Your task to perform on an android device: Show me productivity apps on the Play Store Image 0: 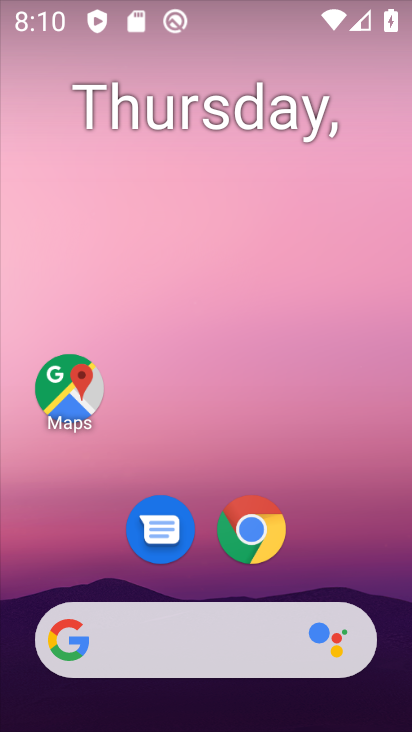
Step 0: drag from (202, 568) to (222, 16)
Your task to perform on an android device: Show me productivity apps on the Play Store Image 1: 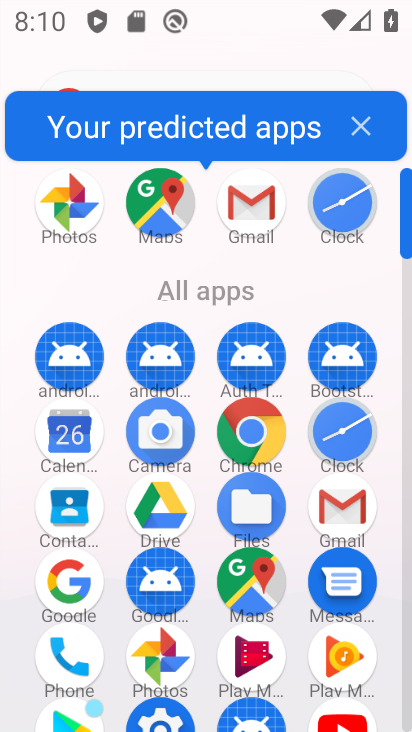
Step 1: drag from (205, 623) to (205, 145)
Your task to perform on an android device: Show me productivity apps on the Play Store Image 2: 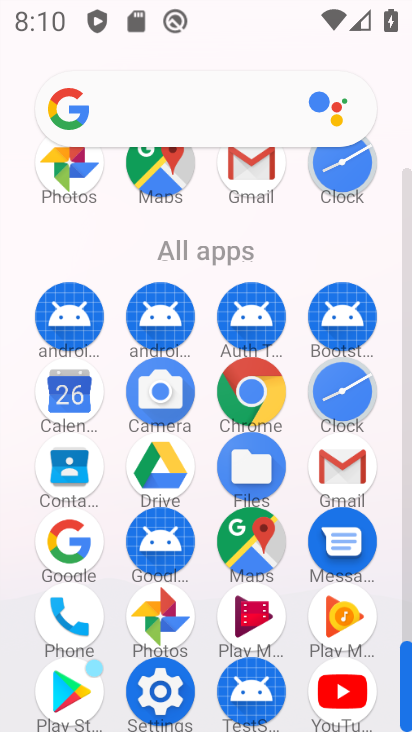
Step 2: click (68, 676)
Your task to perform on an android device: Show me productivity apps on the Play Store Image 3: 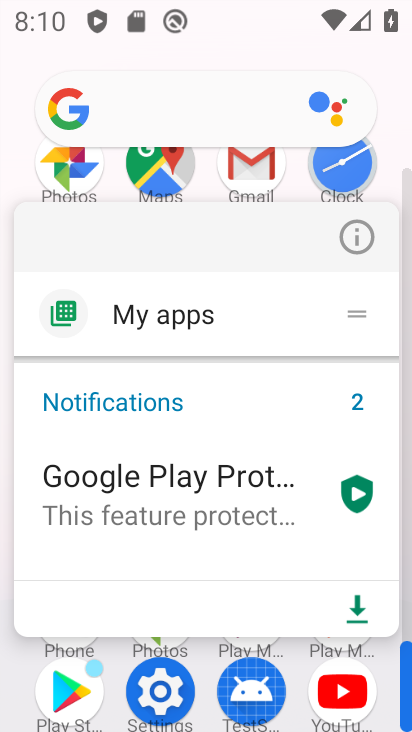
Step 3: click (71, 690)
Your task to perform on an android device: Show me productivity apps on the Play Store Image 4: 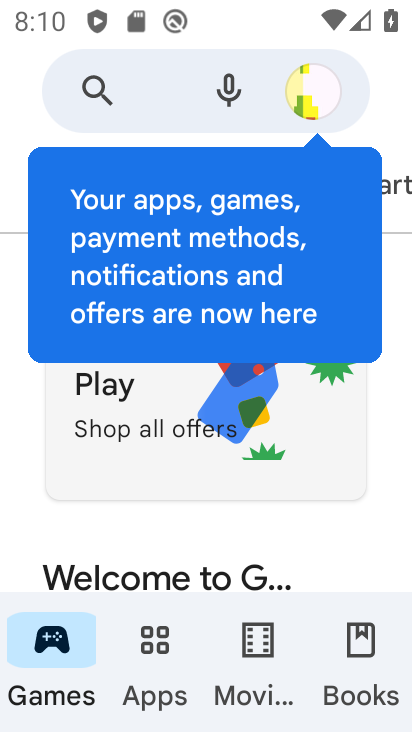
Step 4: click (144, 647)
Your task to perform on an android device: Show me productivity apps on the Play Store Image 5: 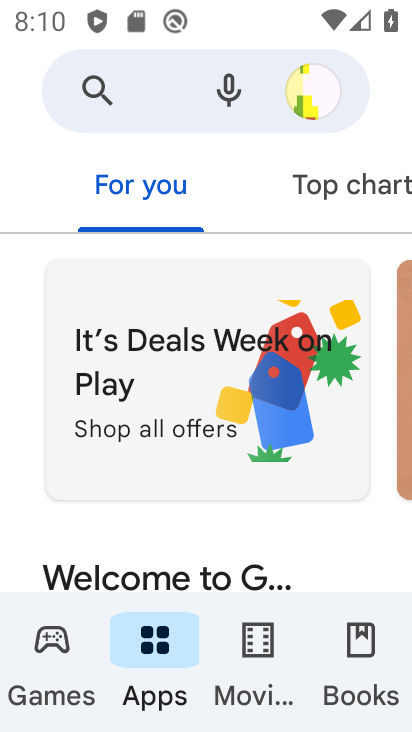
Step 5: drag from (355, 187) to (0, 190)
Your task to perform on an android device: Show me productivity apps on the Play Store Image 6: 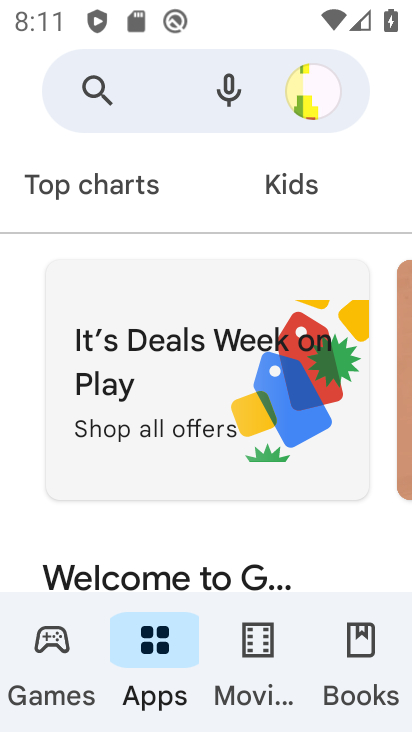
Step 6: drag from (327, 198) to (63, 206)
Your task to perform on an android device: Show me productivity apps on the Play Store Image 7: 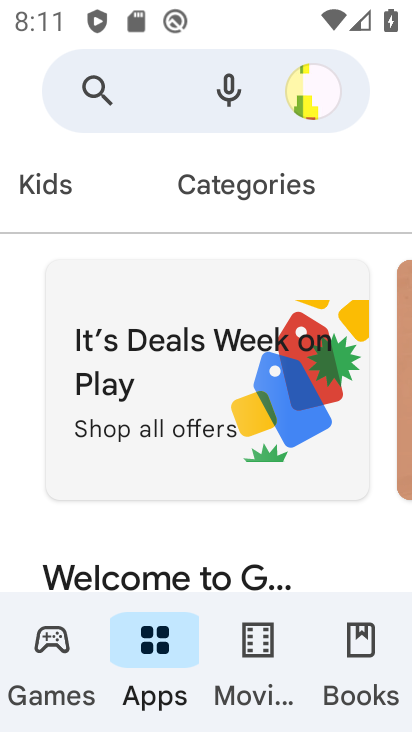
Step 7: click (229, 207)
Your task to perform on an android device: Show me productivity apps on the Play Store Image 8: 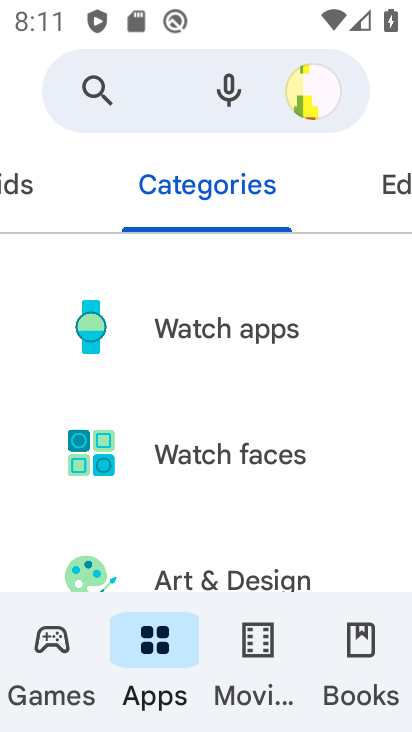
Step 8: drag from (261, 523) to (271, 62)
Your task to perform on an android device: Show me productivity apps on the Play Store Image 9: 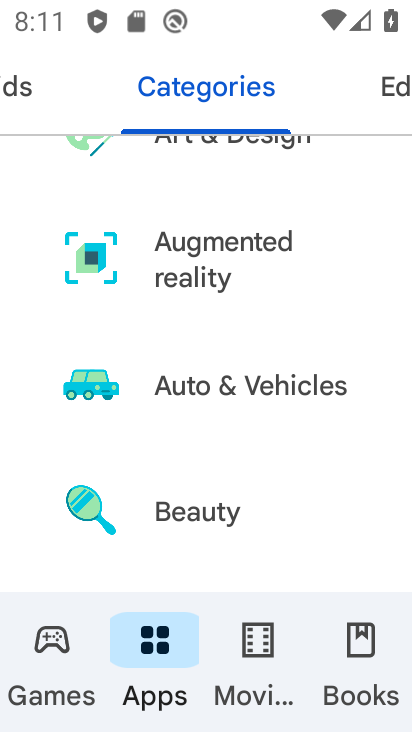
Step 9: drag from (211, 539) to (228, 55)
Your task to perform on an android device: Show me productivity apps on the Play Store Image 10: 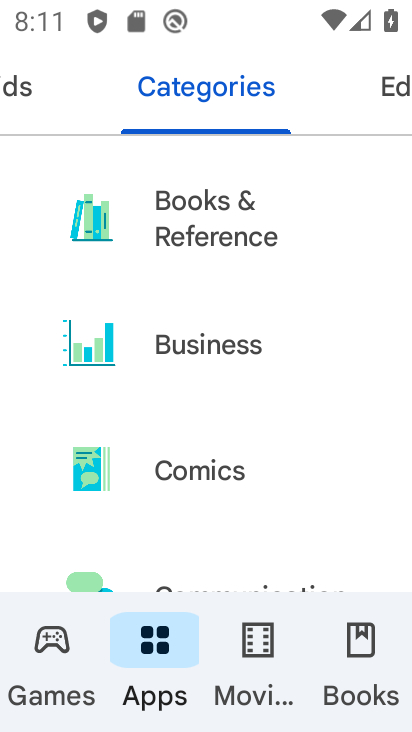
Step 10: drag from (201, 479) to (230, 49)
Your task to perform on an android device: Show me productivity apps on the Play Store Image 11: 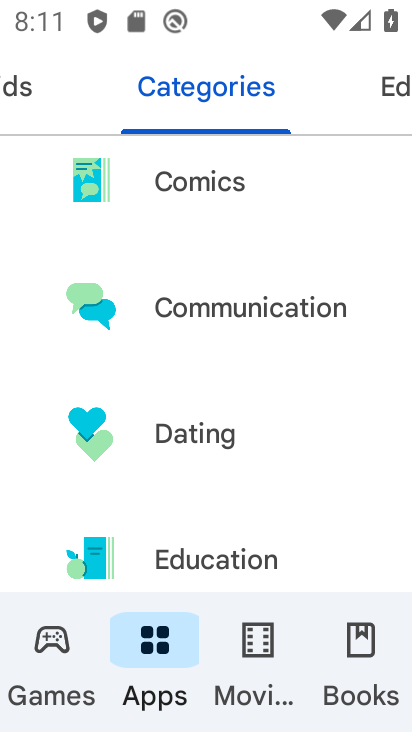
Step 11: drag from (178, 520) to (208, 73)
Your task to perform on an android device: Show me productivity apps on the Play Store Image 12: 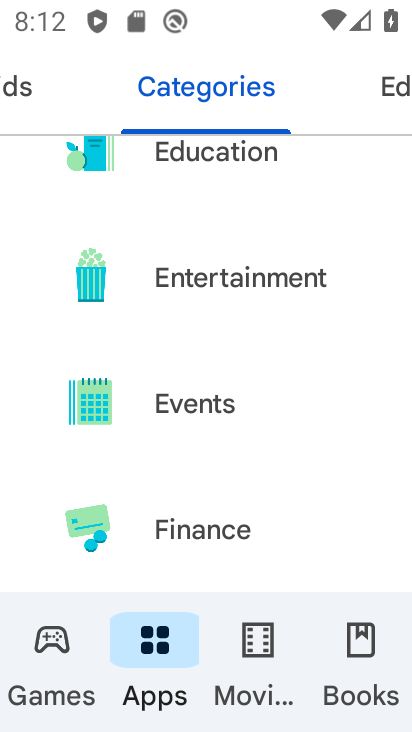
Step 12: drag from (163, 555) to (187, 23)
Your task to perform on an android device: Show me productivity apps on the Play Store Image 13: 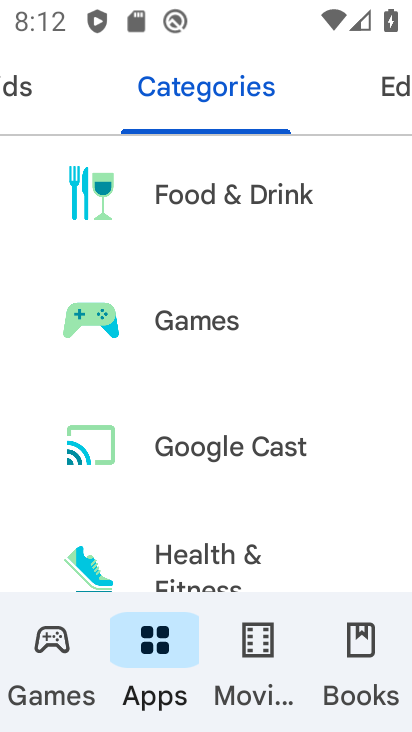
Step 13: drag from (233, 572) to (245, 61)
Your task to perform on an android device: Show me productivity apps on the Play Store Image 14: 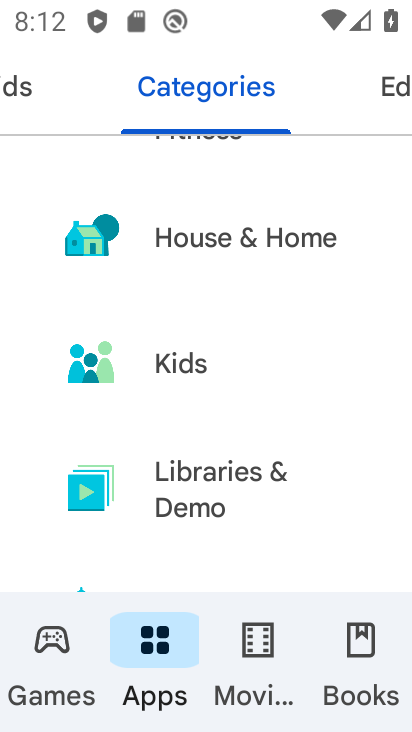
Step 14: drag from (229, 575) to (236, 81)
Your task to perform on an android device: Show me productivity apps on the Play Store Image 15: 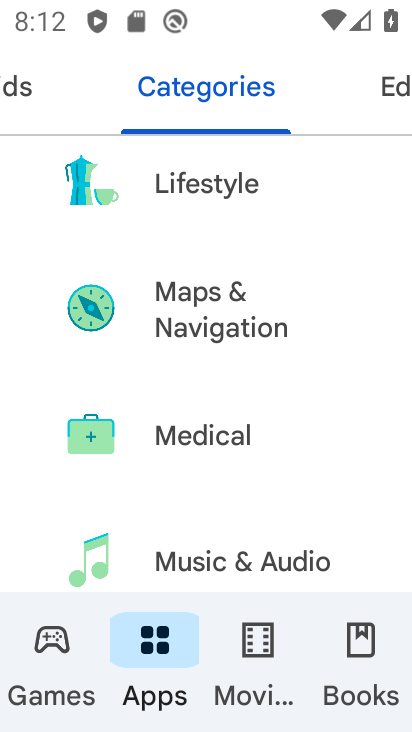
Step 15: drag from (209, 555) to (213, 41)
Your task to perform on an android device: Show me productivity apps on the Play Store Image 16: 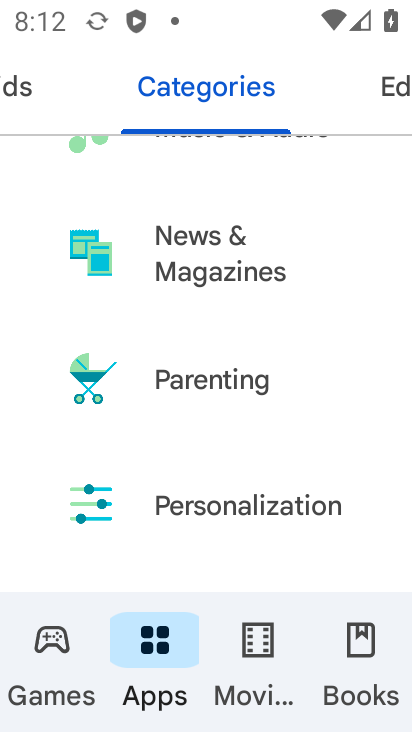
Step 16: drag from (237, 519) to (239, 80)
Your task to perform on an android device: Show me productivity apps on the Play Store Image 17: 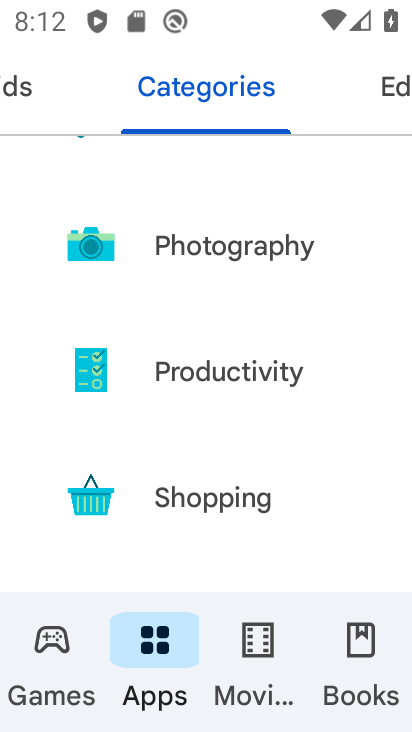
Step 17: click (202, 370)
Your task to perform on an android device: Show me productivity apps on the Play Store Image 18: 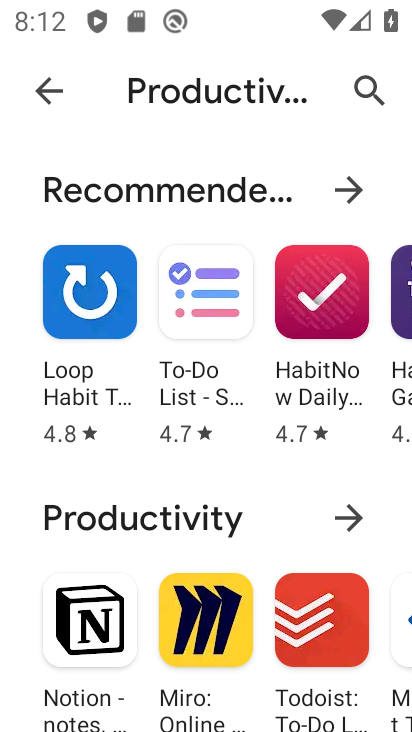
Step 18: task complete